Your task to perform on an android device: Search for the best selling books Image 0: 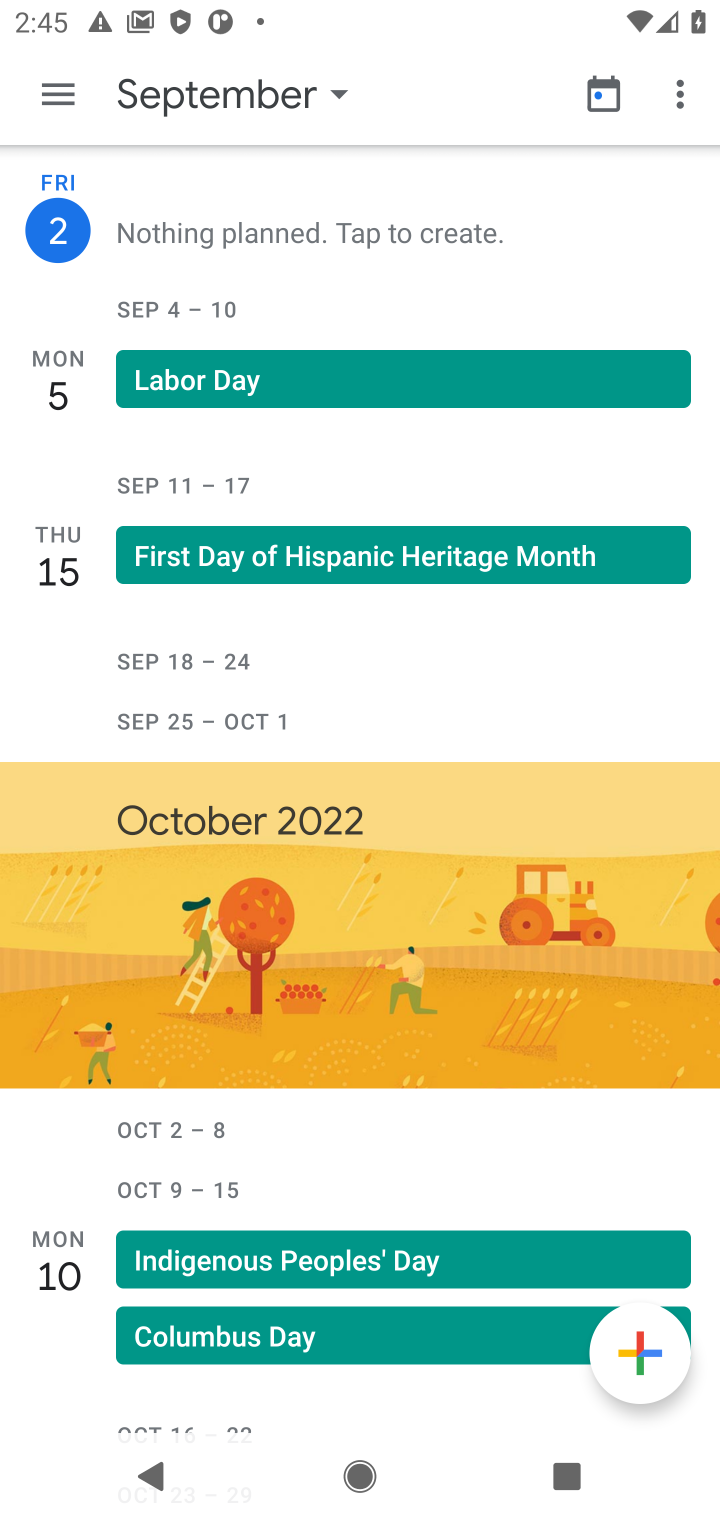
Step 0: press home button
Your task to perform on an android device: Search for the best selling books Image 1: 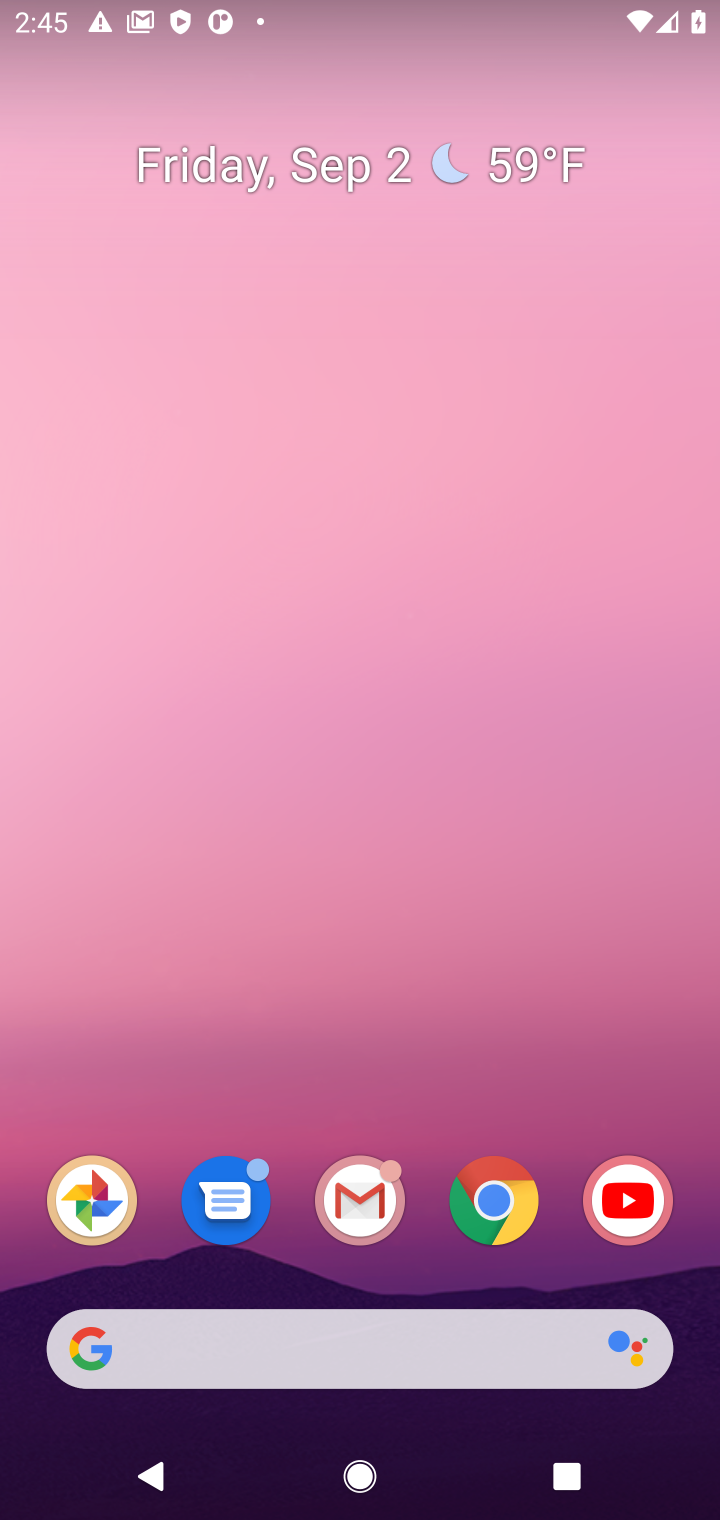
Step 1: click (493, 1200)
Your task to perform on an android device: Search for the best selling books Image 2: 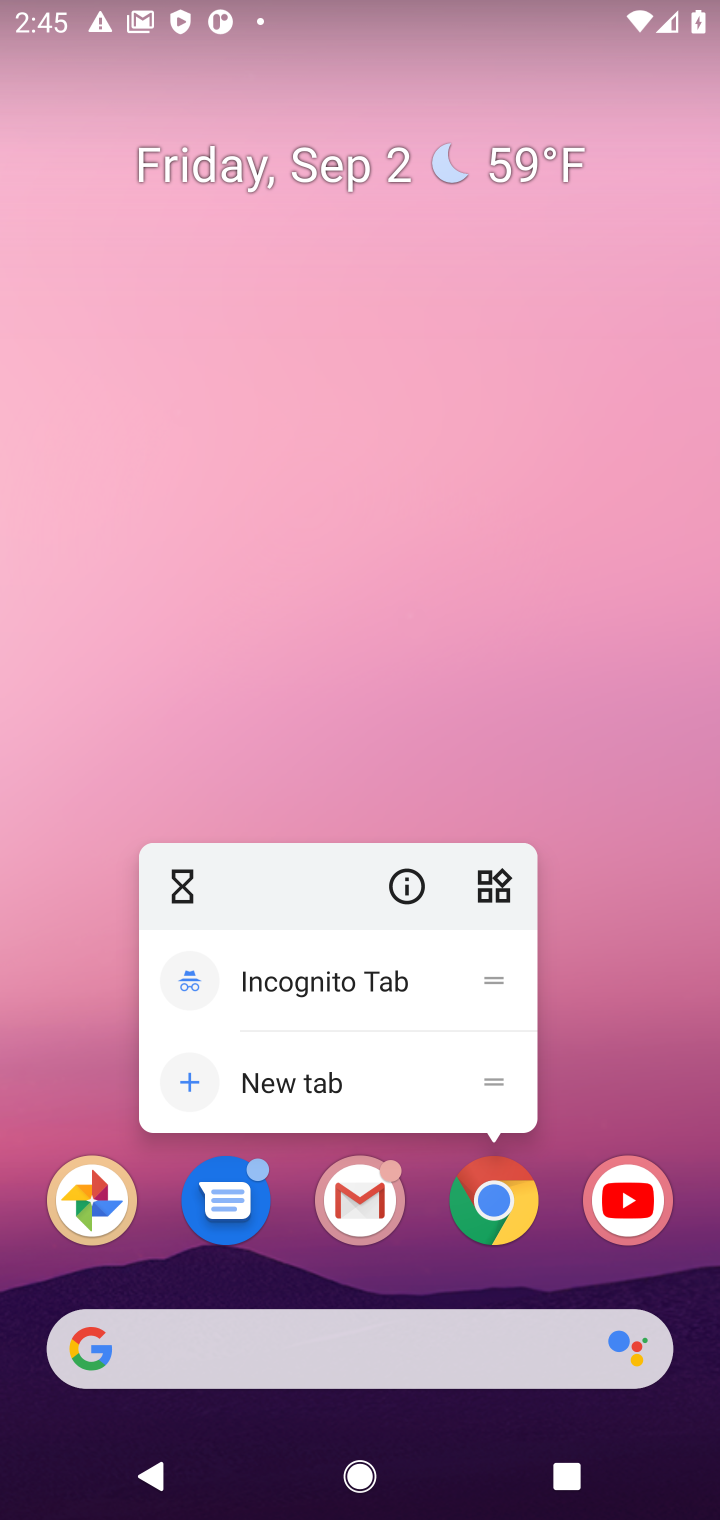
Step 2: click (493, 1200)
Your task to perform on an android device: Search for the best selling books Image 3: 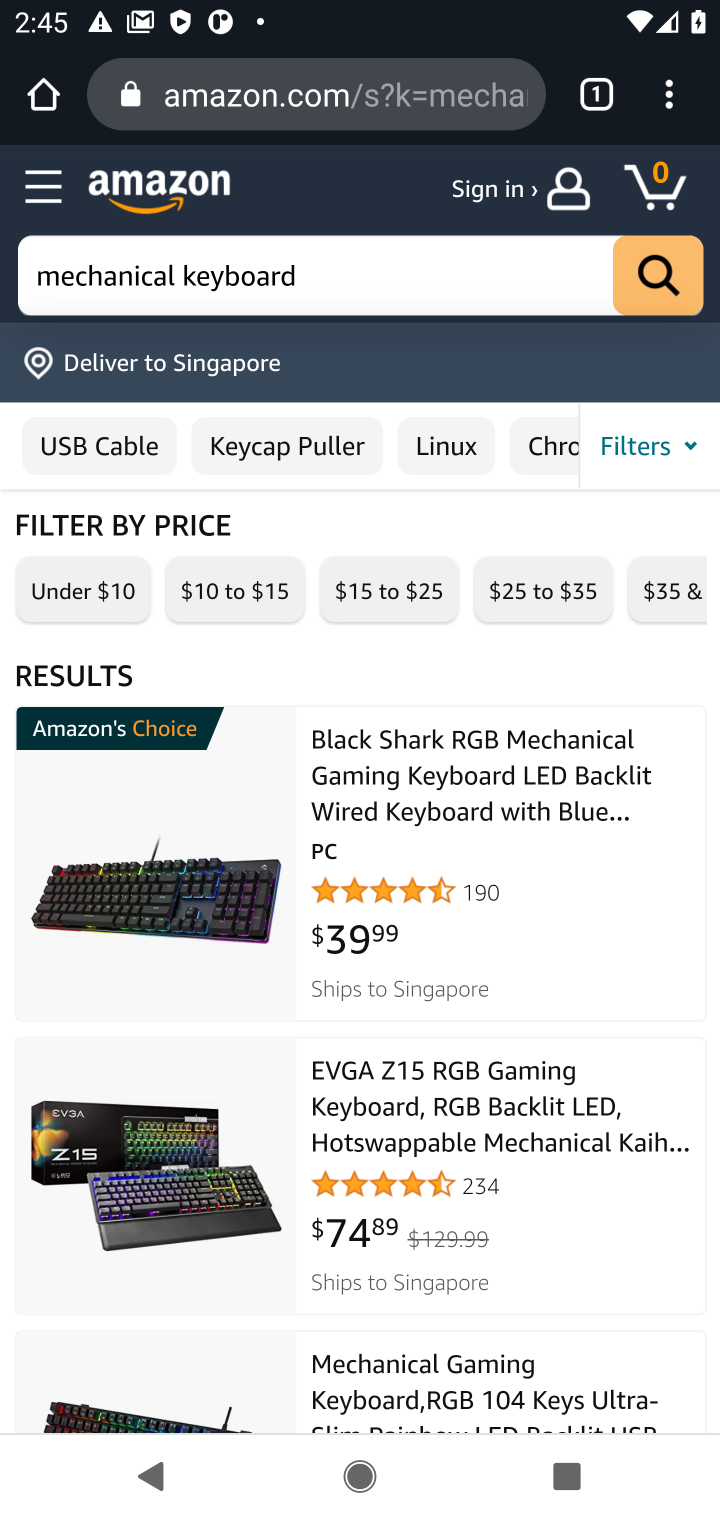
Step 3: click (422, 104)
Your task to perform on an android device: Search for the best selling books Image 4: 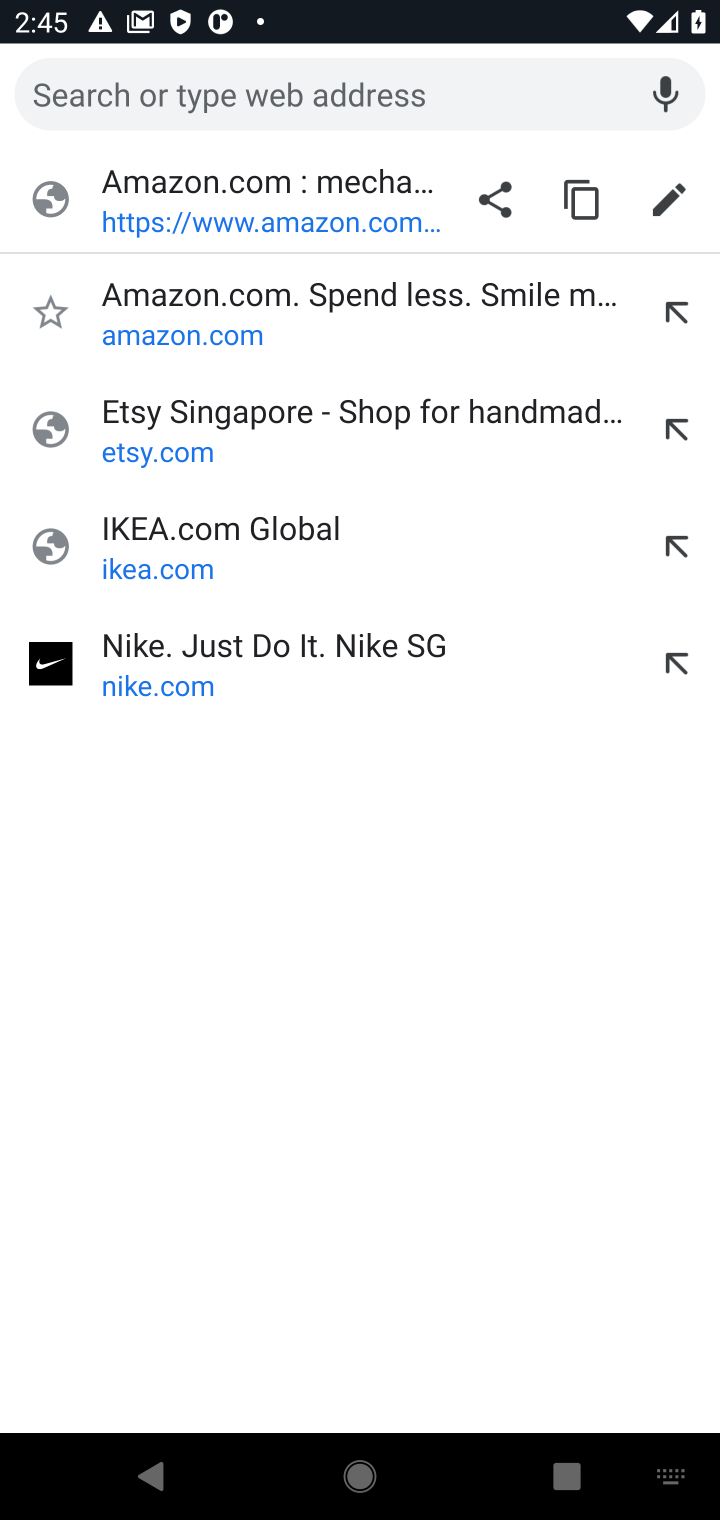
Step 4: type "best selling books"
Your task to perform on an android device: Search for the best selling books Image 5: 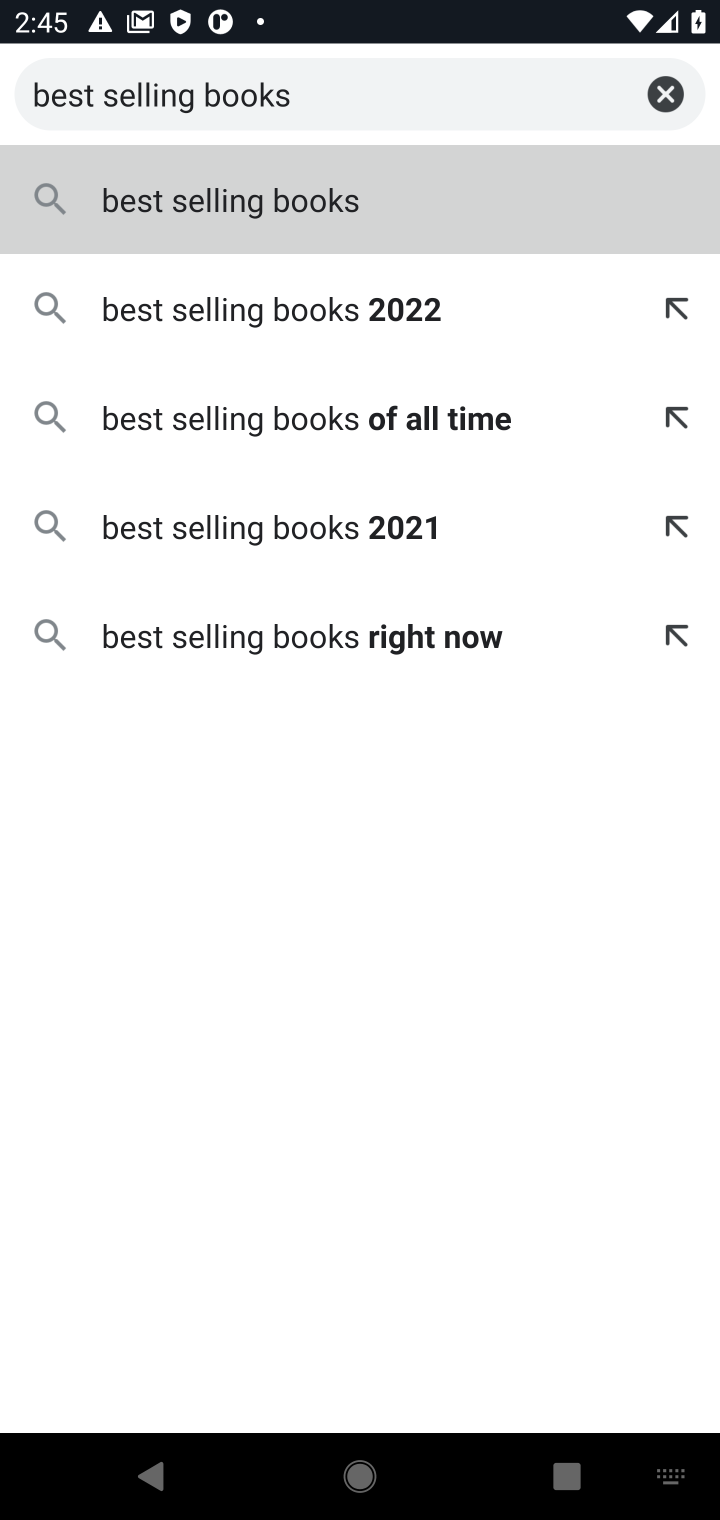
Step 5: press enter
Your task to perform on an android device: Search for the best selling books Image 6: 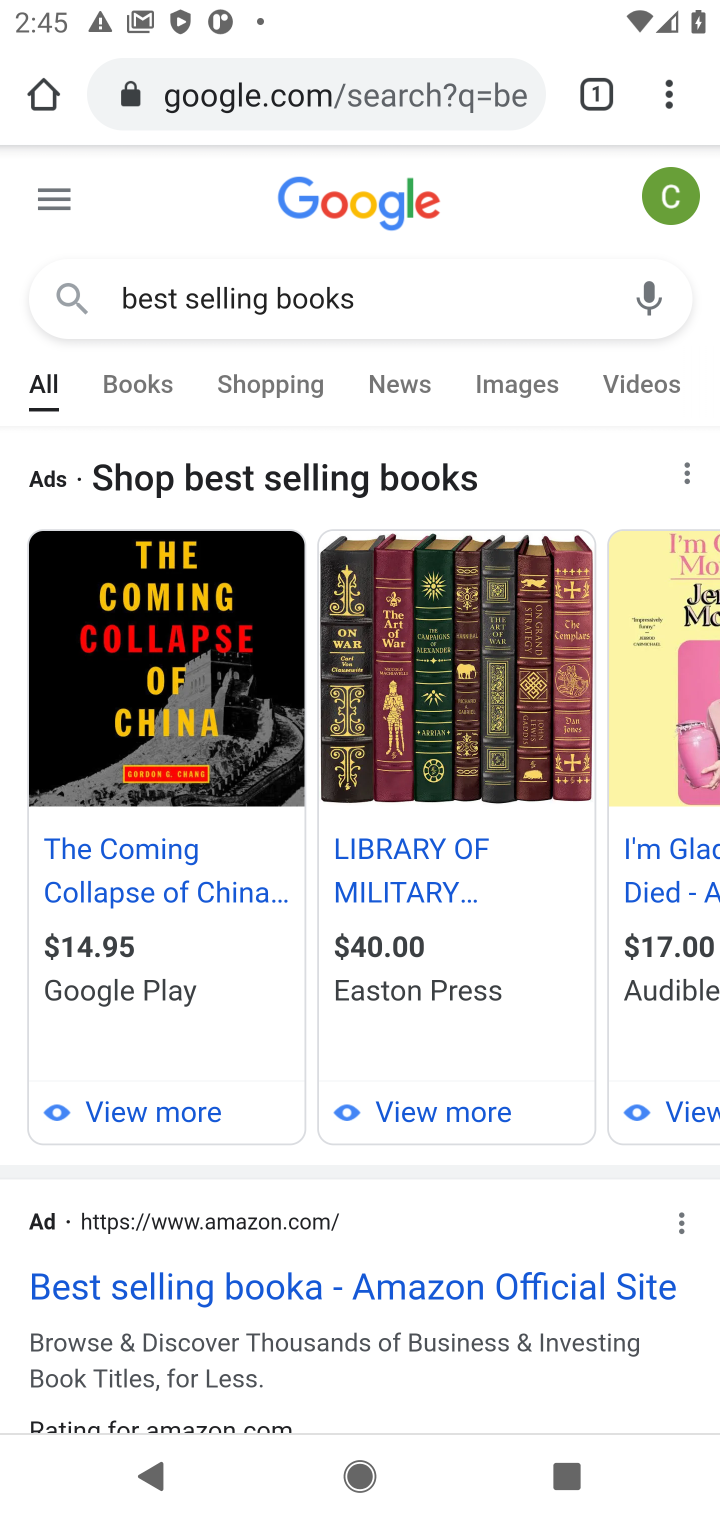
Step 6: task complete